Your task to perform on an android device: Turn on the flashlight Image 0: 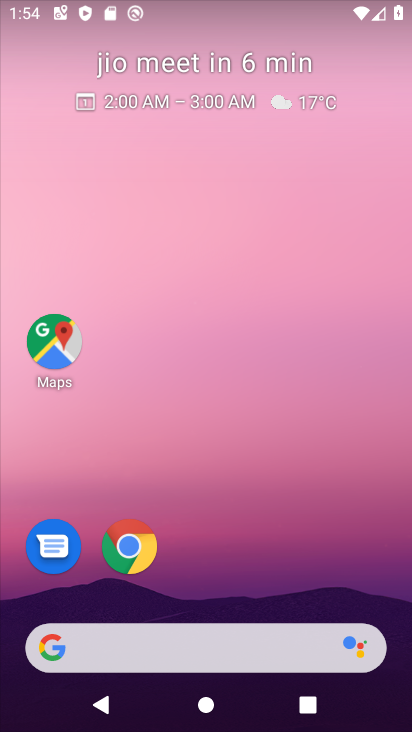
Step 0: drag from (246, 596) to (201, 156)
Your task to perform on an android device: Turn on the flashlight Image 1: 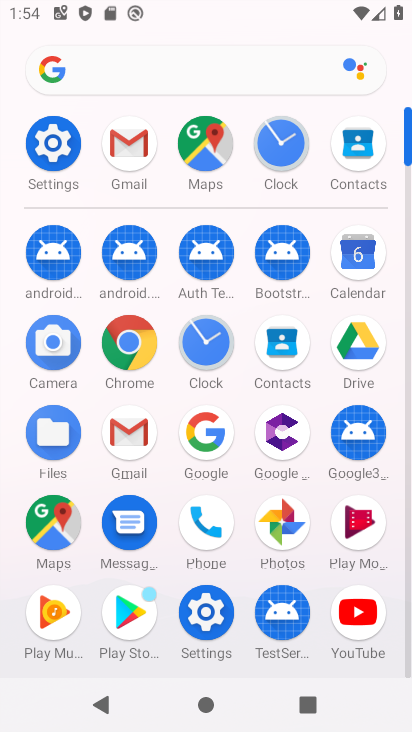
Step 1: click (66, 150)
Your task to perform on an android device: Turn on the flashlight Image 2: 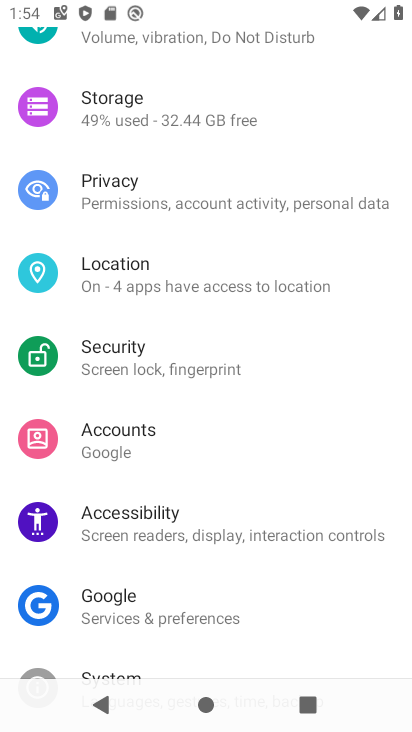
Step 2: task complete